Your task to perform on an android device: Search for Mexican restaurants on Maps Image 0: 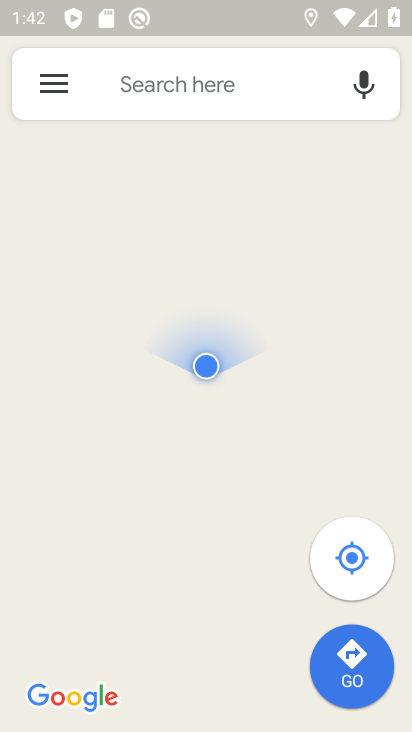
Step 0: click (174, 85)
Your task to perform on an android device: Search for Mexican restaurants on Maps Image 1: 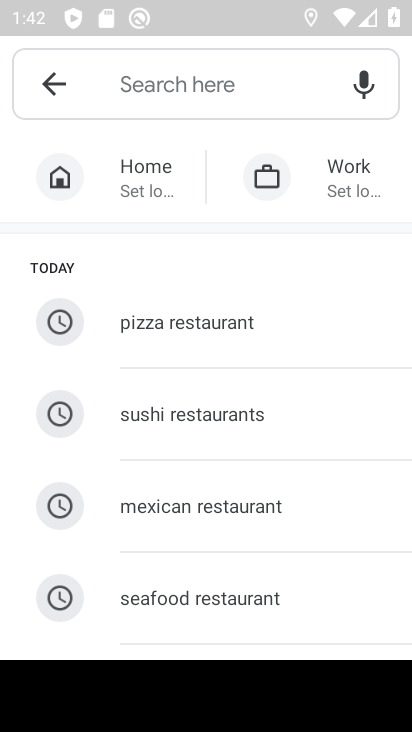
Step 1: type "Mexican restaurants"
Your task to perform on an android device: Search for Mexican restaurants on Maps Image 2: 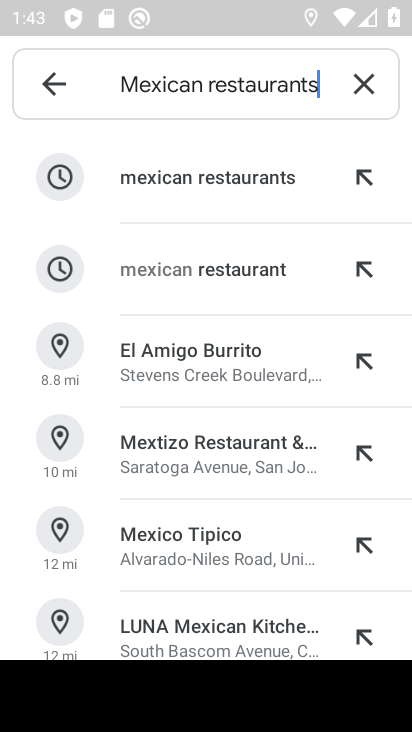
Step 2: click (235, 167)
Your task to perform on an android device: Search for Mexican restaurants on Maps Image 3: 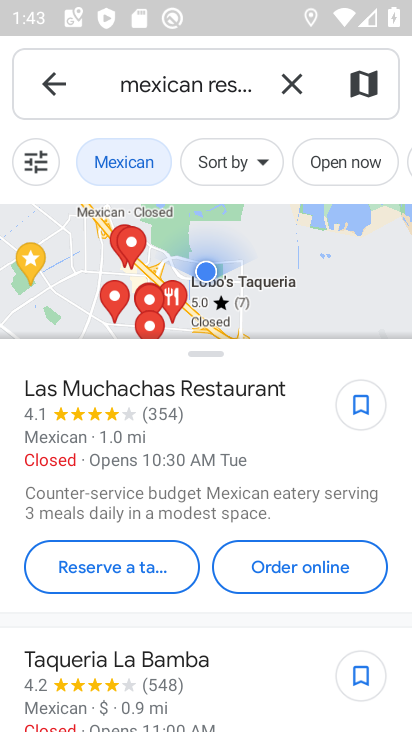
Step 3: task complete